Your task to perform on an android device: Search for pizza restaurants on Maps Image 0: 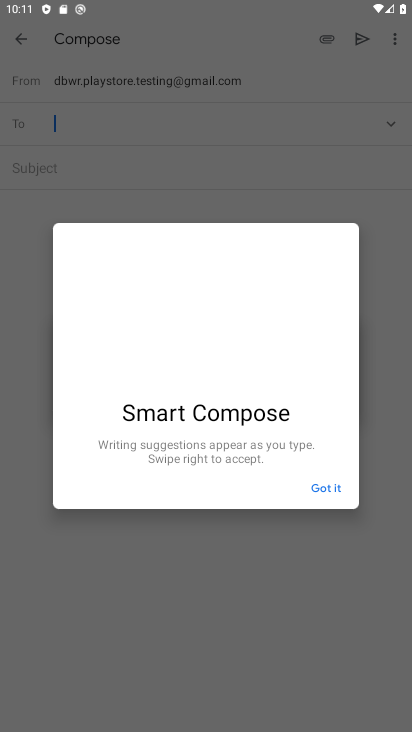
Step 0: press home button
Your task to perform on an android device: Search for pizza restaurants on Maps Image 1: 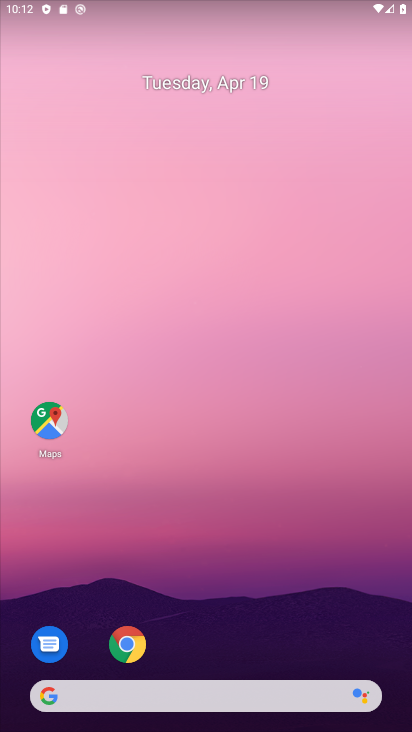
Step 1: drag from (211, 640) to (221, 2)
Your task to perform on an android device: Search for pizza restaurants on Maps Image 2: 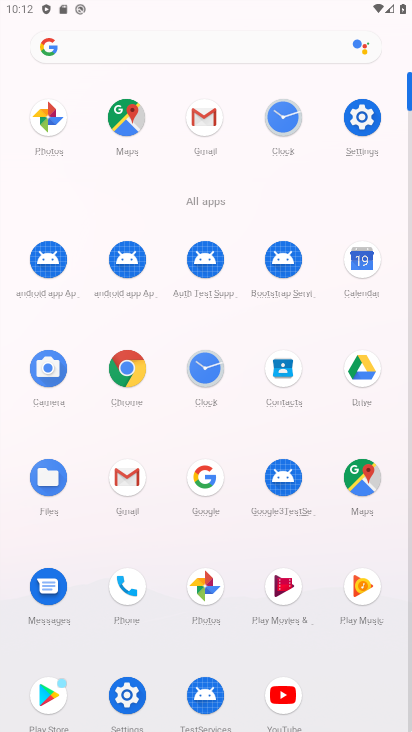
Step 2: click (125, 128)
Your task to perform on an android device: Search for pizza restaurants on Maps Image 3: 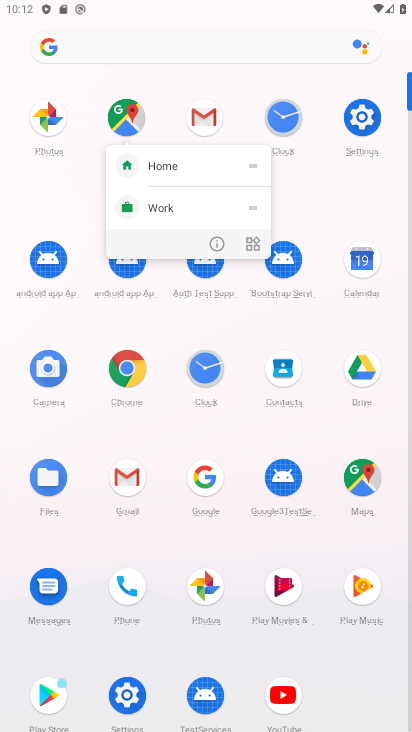
Step 3: click (124, 122)
Your task to perform on an android device: Search for pizza restaurants on Maps Image 4: 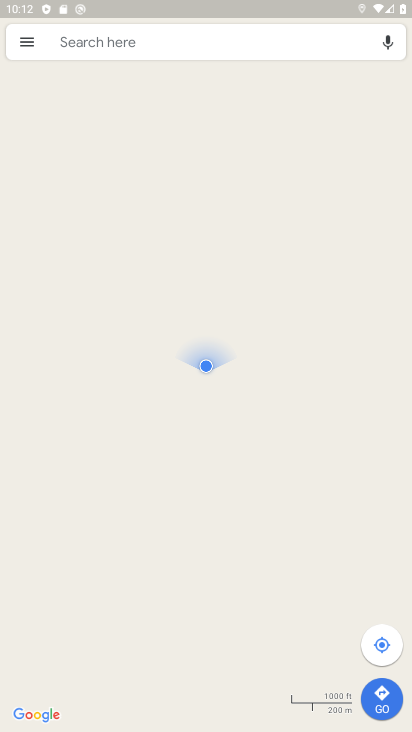
Step 4: click (153, 43)
Your task to perform on an android device: Search for pizza restaurants on Maps Image 5: 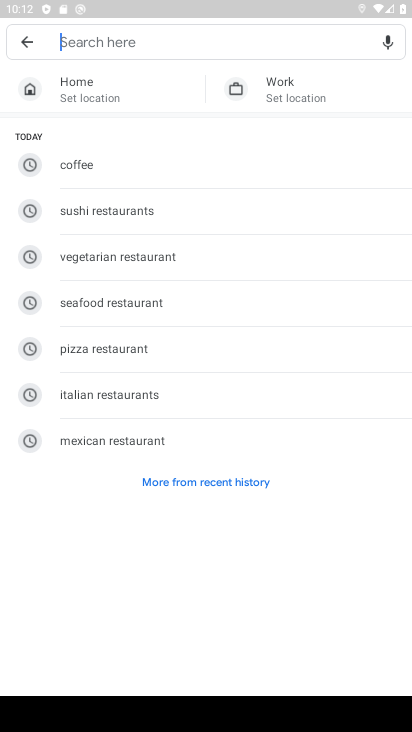
Step 5: type "pizza restaurants"
Your task to perform on an android device: Search for pizza restaurants on Maps Image 6: 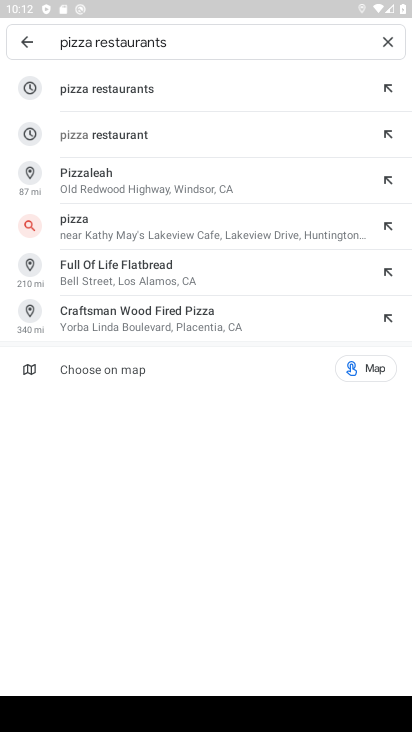
Step 6: click (158, 94)
Your task to perform on an android device: Search for pizza restaurants on Maps Image 7: 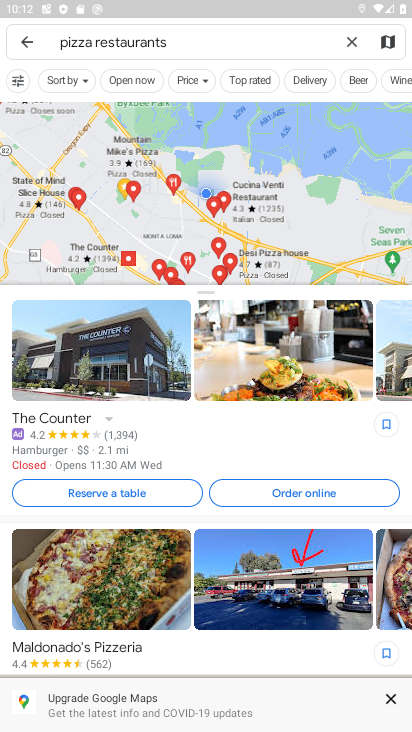
Step 7: task complete